Your task to perform on an android device: Open ESPN.com Image 0: 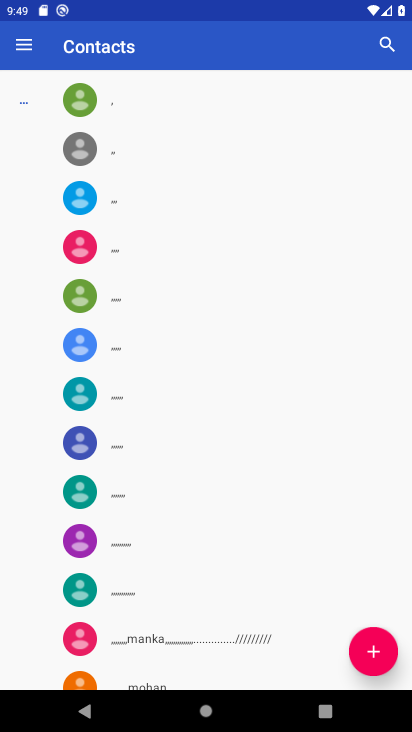
Step 0: press back button
Your task to perform on an android device: Open ESPN.com Image 1: 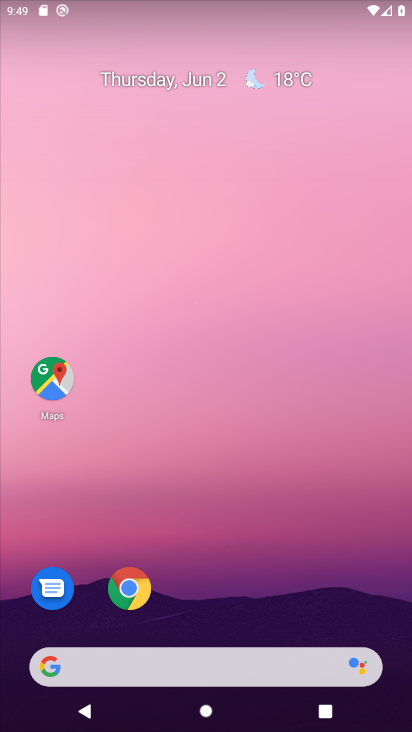
Step 1: drag from (280, 695) to (272, 25)
Your task to perform on an android device: Open ESPN.com Image 2: 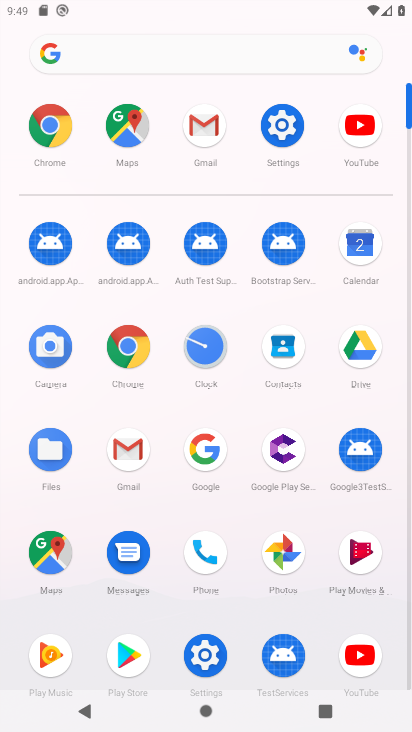
Step 2: click (52, 136)
Your task to perform on an android device: Open ESPN.com Image 3: 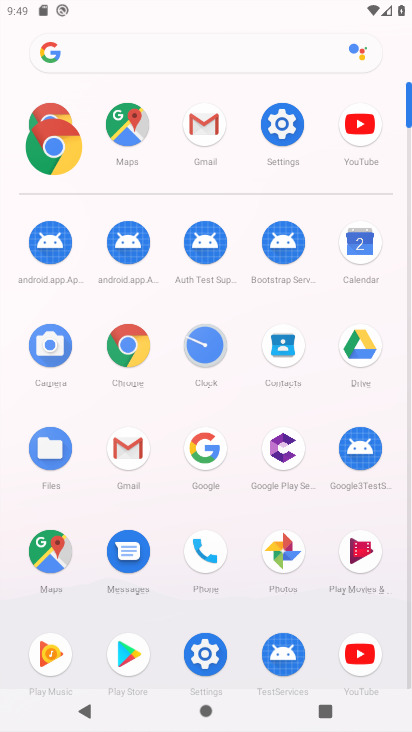
Step 3: click (49, 134)
Your task to perform on an android device: Open ESPN.com Image 4: 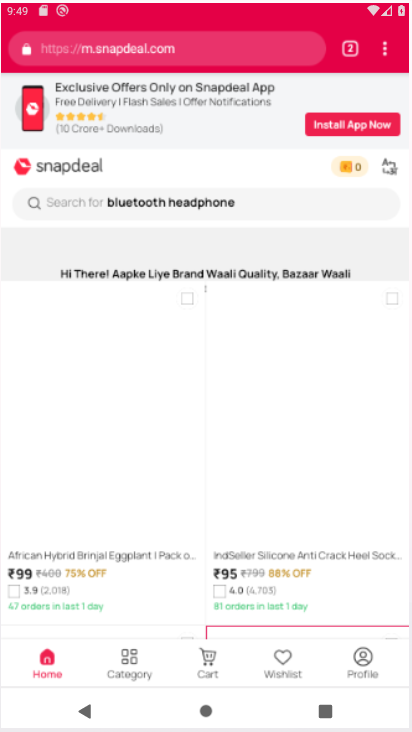
Step 4: click (51, 135)
Your task to perform on an android device: Open ESPN.com Image 5: 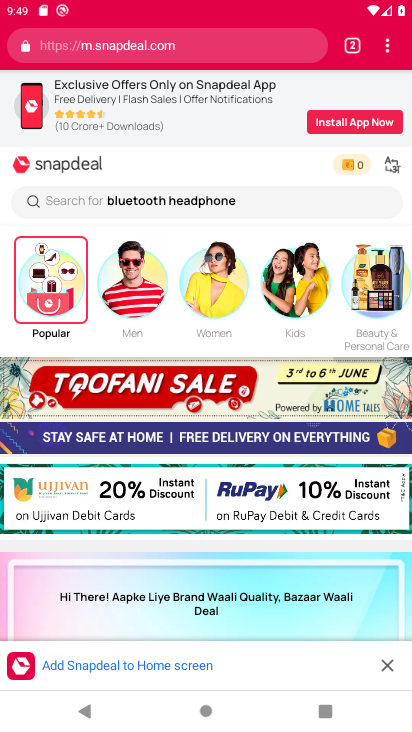
Step 5: drag from (382, 44) to (213, 90)
Your task to perform on an android device: Open ESPN.com Image 6: 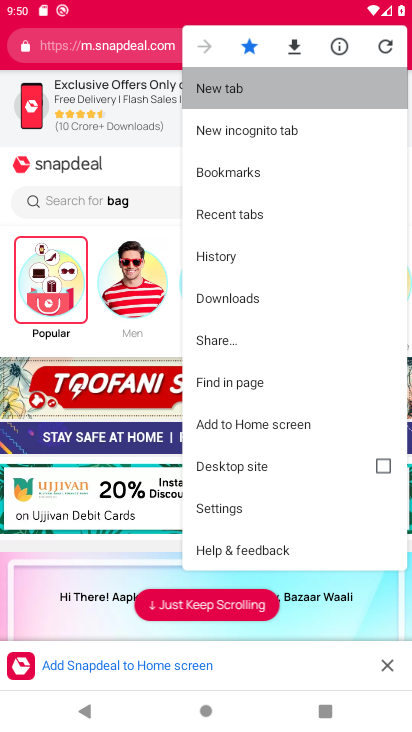
Step 6: click (213, 90)
Your task to perform on an android device: Open ESPN.com Image 7: 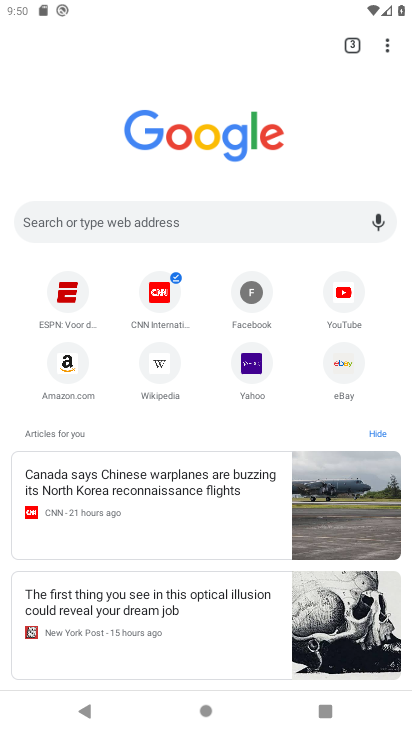
Step 7: click (69, 294)
Your task to perform on an android device: Open ESPN.com Image 8: 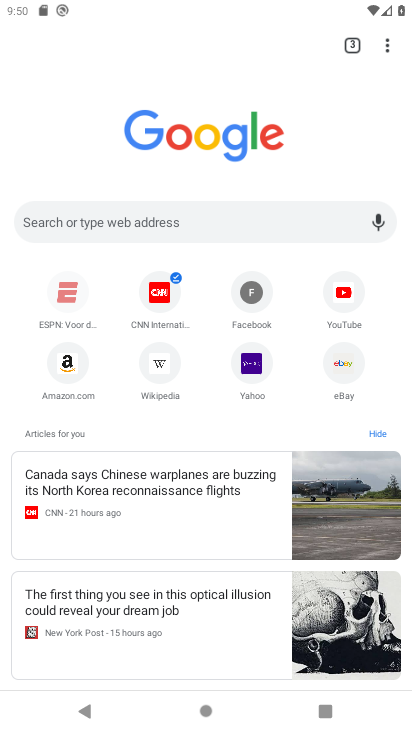
Step 8: click (68, 297)
Your task to perform on an android device: Open ESPN.com Image 9: 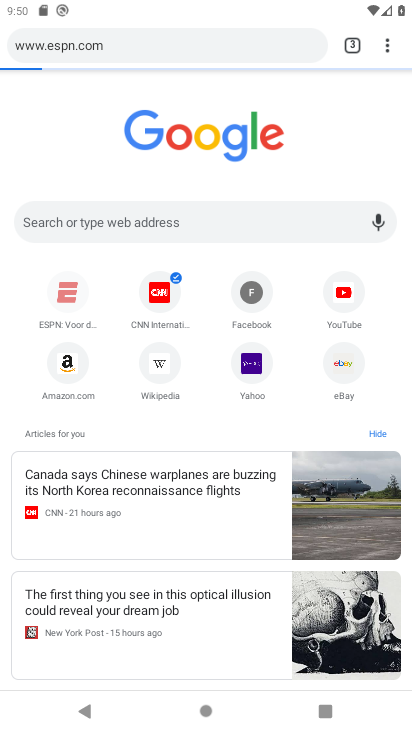
Step 9: click (66, 298)
Your task to perform on an android device: Open ESPN.com Image 10: 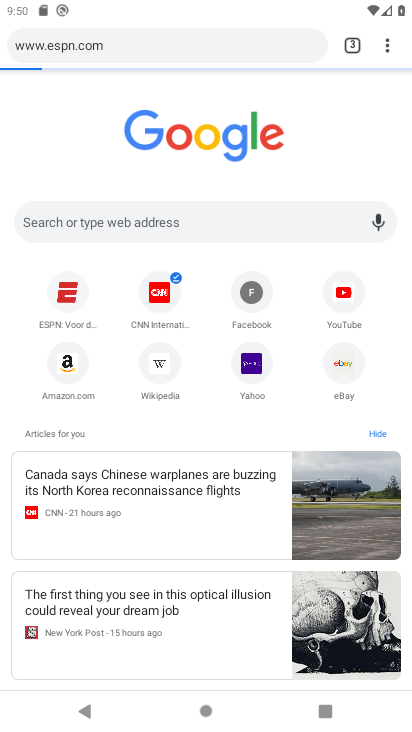
Step 10: click (66, 296)
Your task to perform on an android device: Open ESPN.com Image 11: 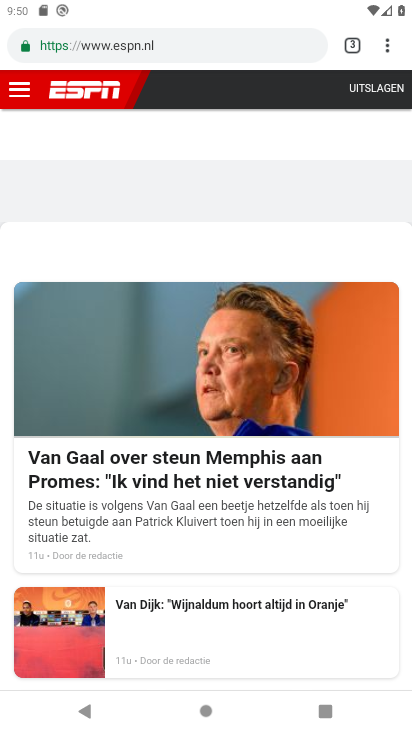
Step 11: task complete